Your task to perform on an android device: turn notification dots off Image 0: 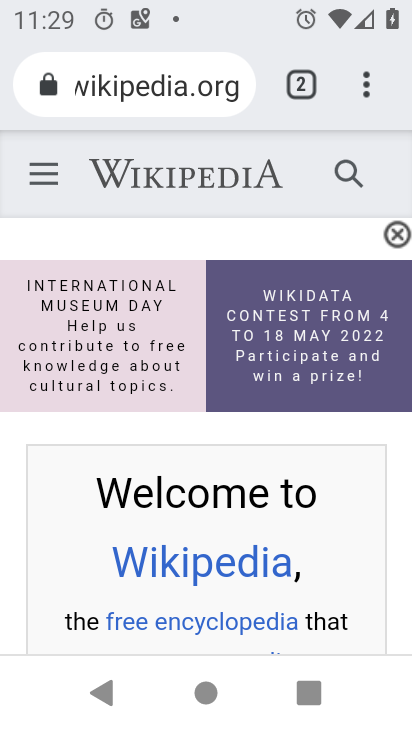
Step 0: press home button
Your task to perform on an android device: turn notification dots off Image 1: 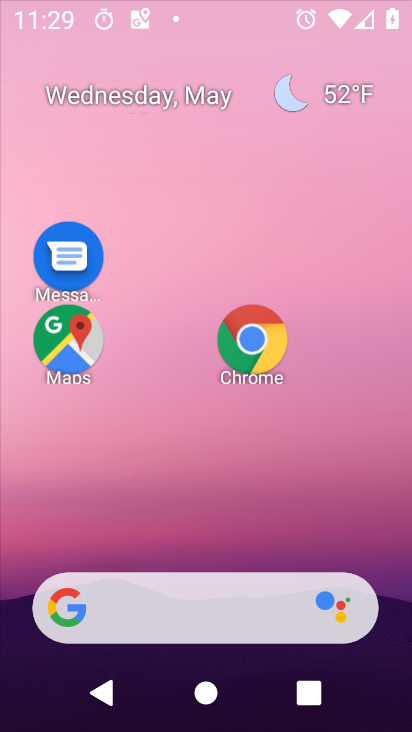
Step 1: drag from (209, 546) to (191, 85)
Your task to perform on an android device: turn notification dots off Image 2: 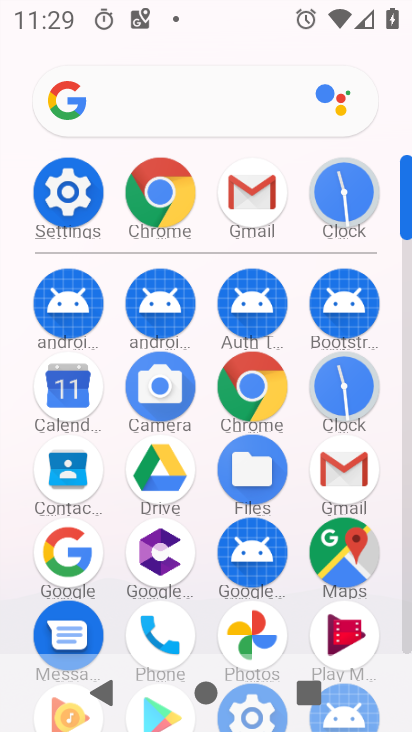
Step 2: click (67, 199)
Your task to perform on an android device: turn notification dots off Image 3: 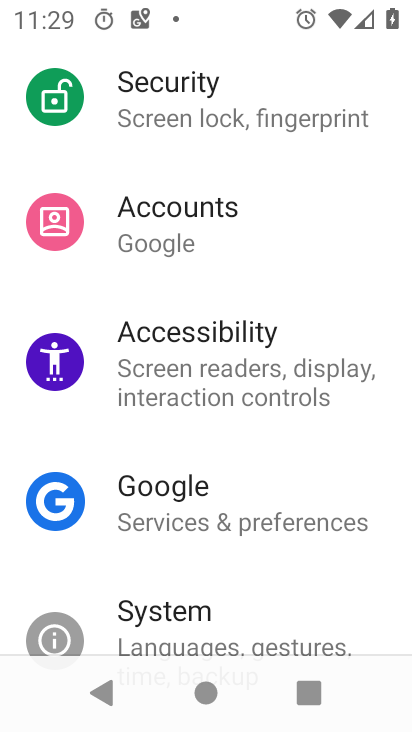
Step 3: drag from (195, 202) to (207, 661)
Your task to perform on an android device: turn notification dots off Image 4: 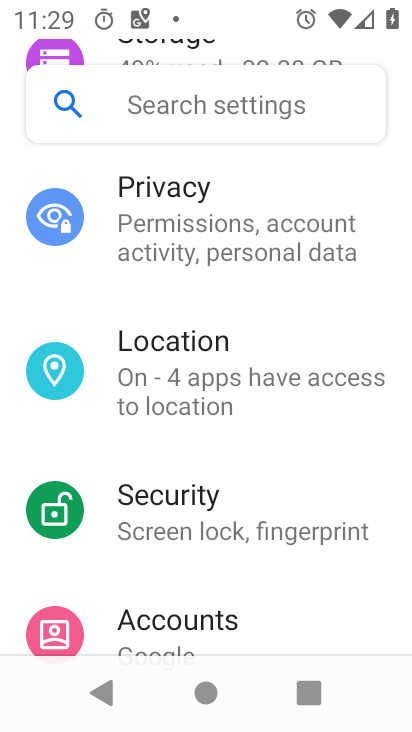
Step 4: drag from (166, 231) to (316, 598)
Your task to perform on an android device: turn notification dots off Image 5: 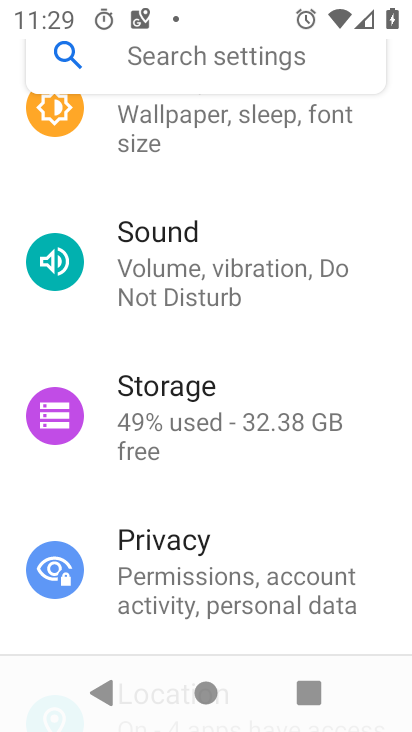
Step 5: drag from (140, 218) to (220, 550)
Your task to perform on an android device: turn notification dots off Image 6: 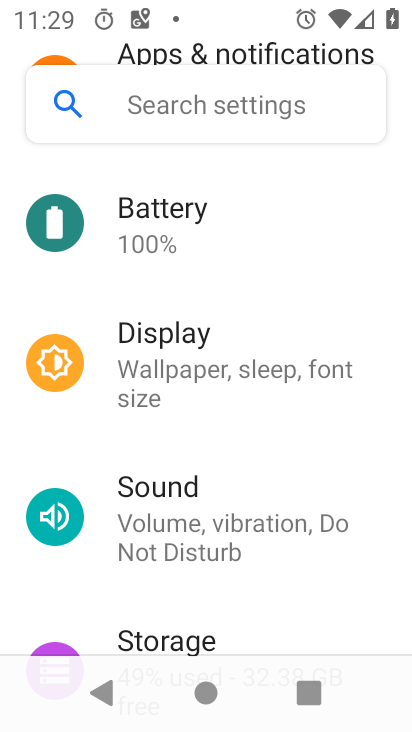
Step 6: drag from (134, 192) to (228, 560)
Your task to perform on an android device: turn notification dots off Image 7: 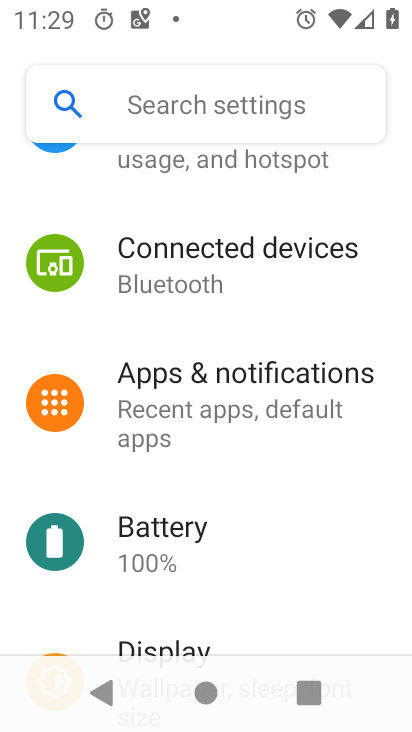
Step 7: click (225, 380)
Your task to perform on an android device: turn notification dots off Image 8: 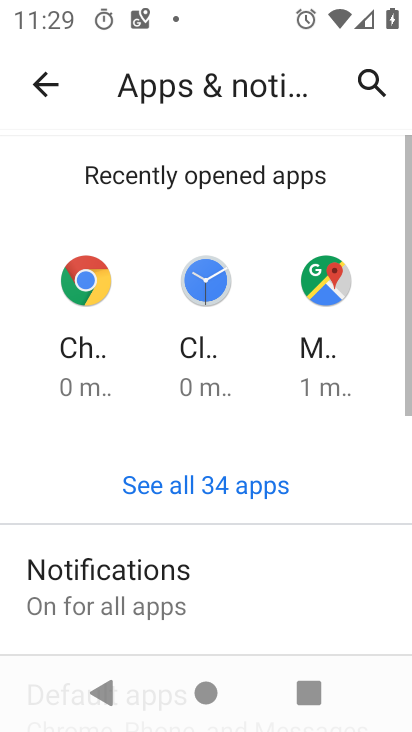
Step 8: click (132, 564)
Your task to perform on an android device: turn notification dots off Image 9: 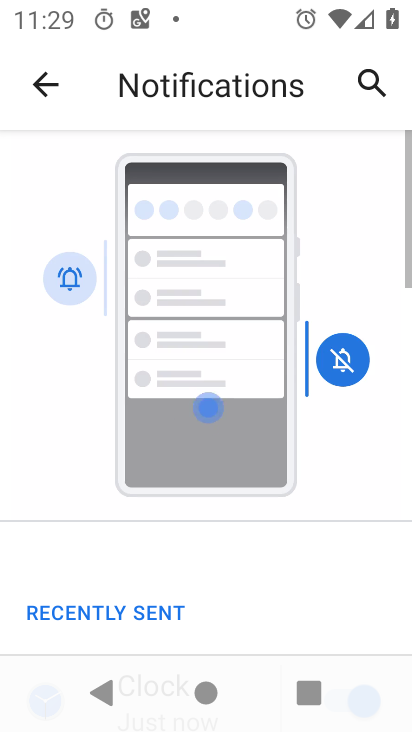
Step 9: drag from (289, 580) to (218, 9)
Your task to perform on an android device: turn notification dots off Image 10: 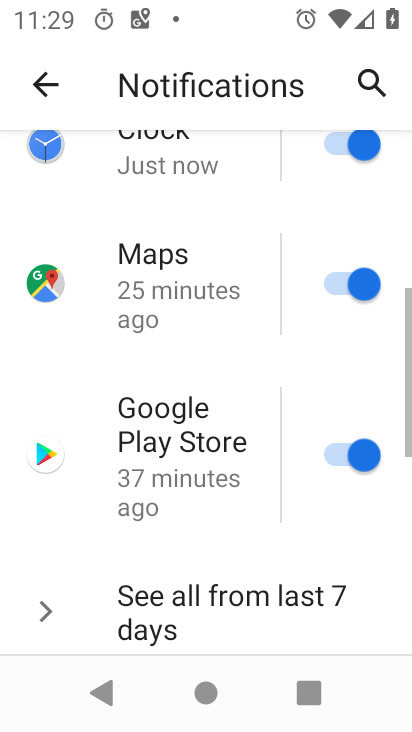
Step 10: drag from (223, 496) to (221, 89)
Your task to perform on an android device: turn notification dots off Image 11: 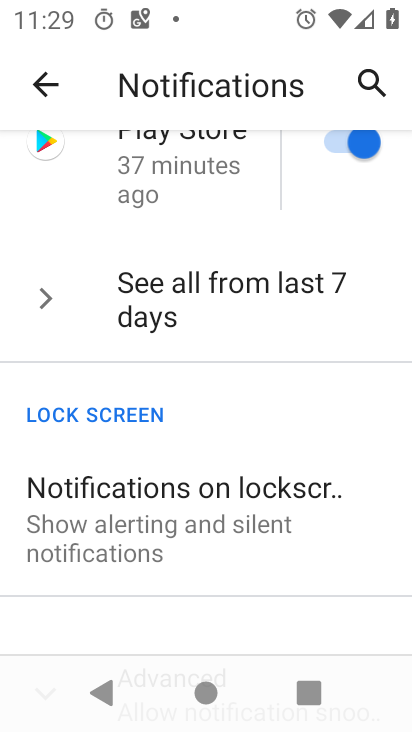
Step 11: drag from (181, 587) to (190, 214)
Your task to perform on an android device: turn notification dots off Image 12: 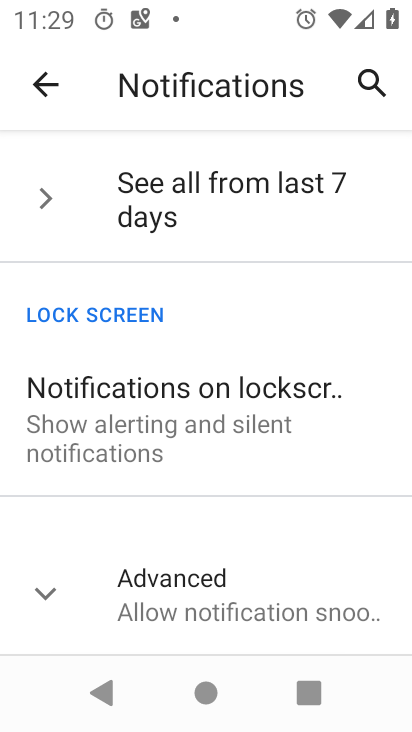
Step 12: click (187, 598)
Your task to perform on an android device: turn notification dots off Image 13: 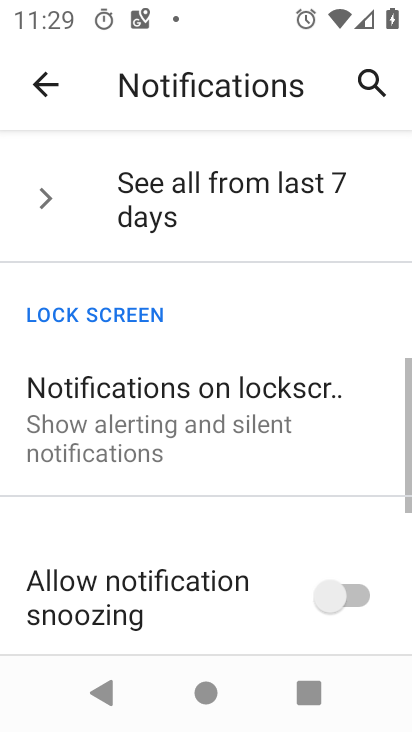
Step 13: task complete